Your task to perform on an android device: turn on the 12-hour format for clock Image 0: 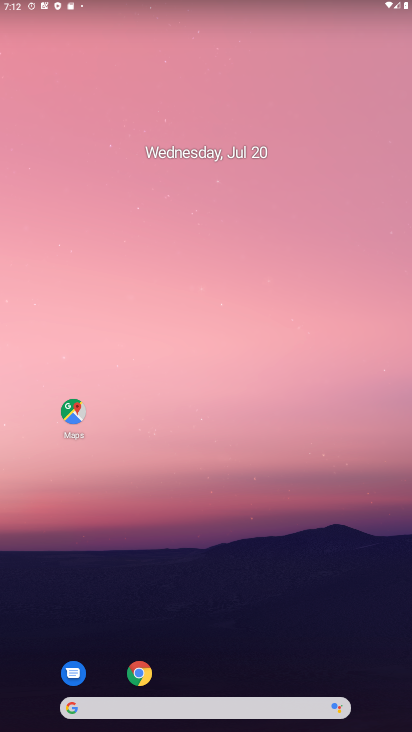
Step 0: drag from (383, 650) to (171, 24)
Your task to perform on an android device: turn on the 12-hour format for clock Image 1: 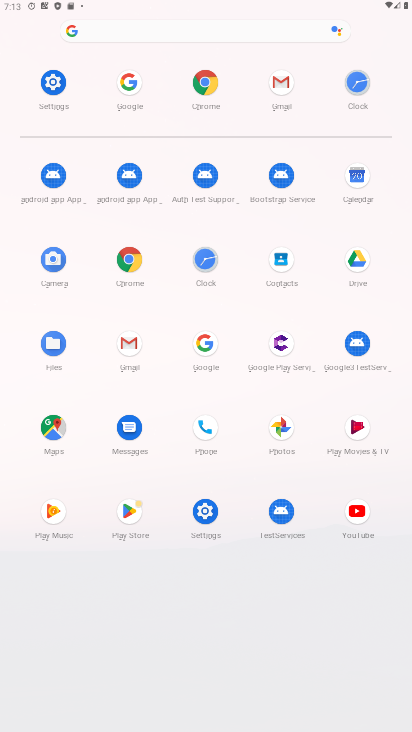
Step 1: click (215, 255)
Your task to perform on an android device: turn on the 12-hour format for clock Image 2: 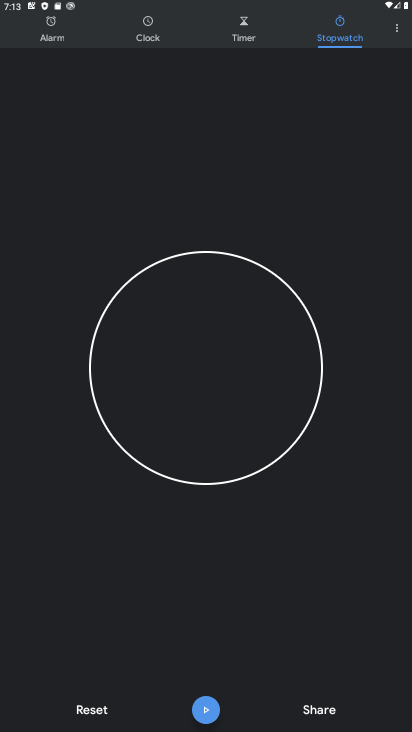
Step 2: click (397, 26)
Your task to perform on an android device: turn on the 12-hour format for clock Image 3: 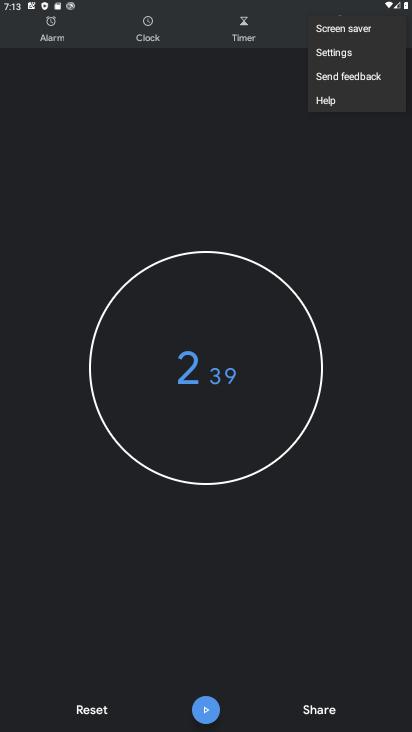
Step 3: click (355, 52)
Your task to perform on an android device: turn on the 12-hour format for clock Image 4: 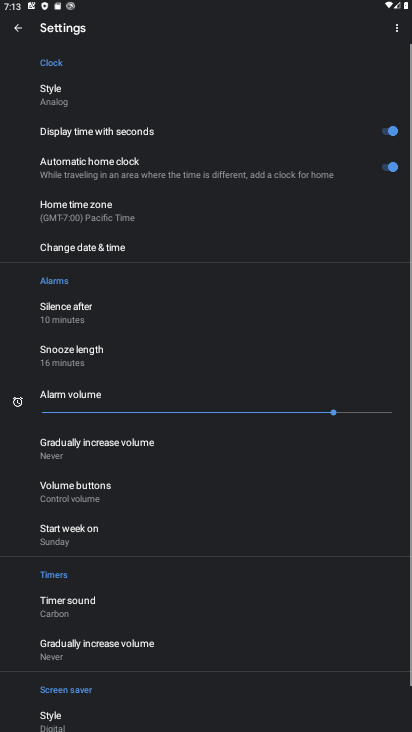
Step 4: click (96, 240)
Your task to perform on an android device: turn on the 12-hour format for clock Image 5: 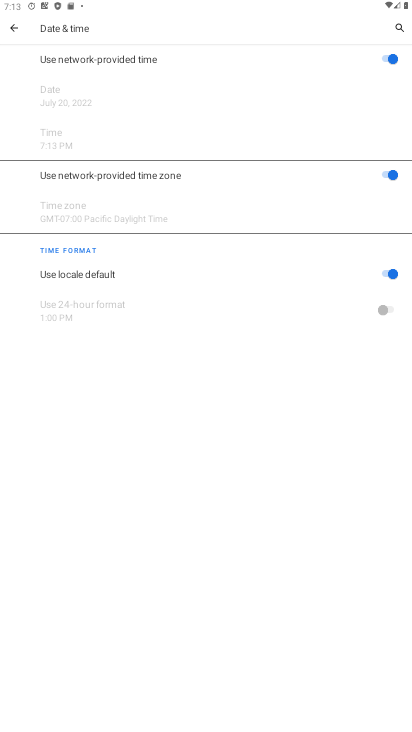
Step 5: task complete